Your task to perform on an android device: change the clock display to show seconds Image 0: 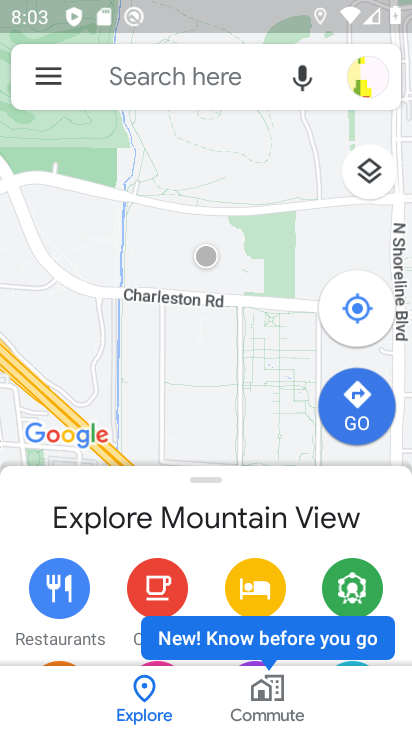
Step 0: press home button
Your task to perform on an android device: change the clock display to show seconds Image 1: 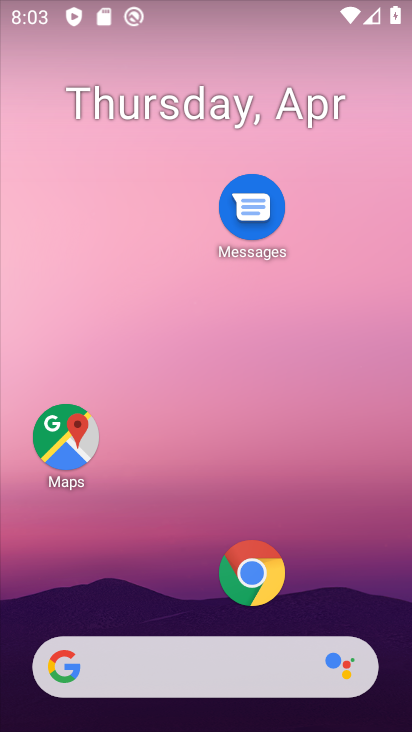
Step 1: drag from (178, 580) to (202, 59)
Your task to perform on an android device: change the clock display to show seconds Image 2: 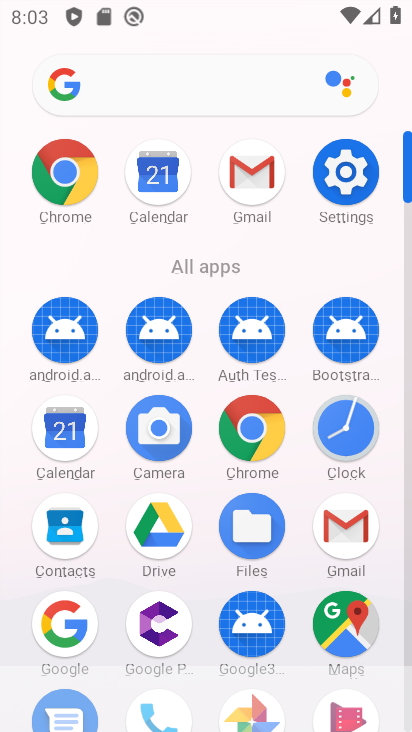
Step 2: click (344, 424)
Your task to perform on an android device: change the clock display to show seconds Image 3: 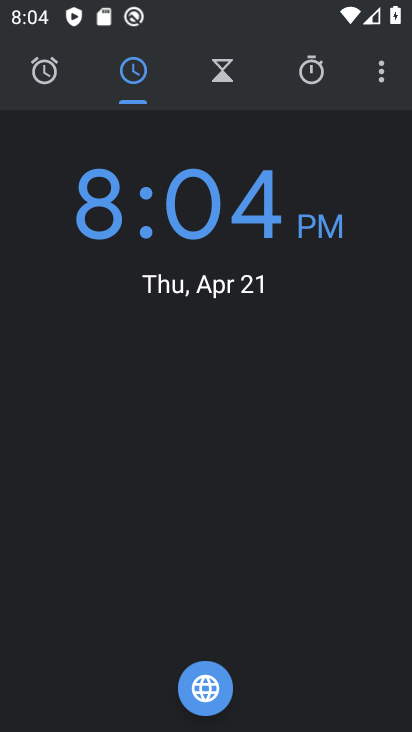
Step 3: click (378, 71)
Your task to perform on an android device: change the clock display to show seconds Image 4: 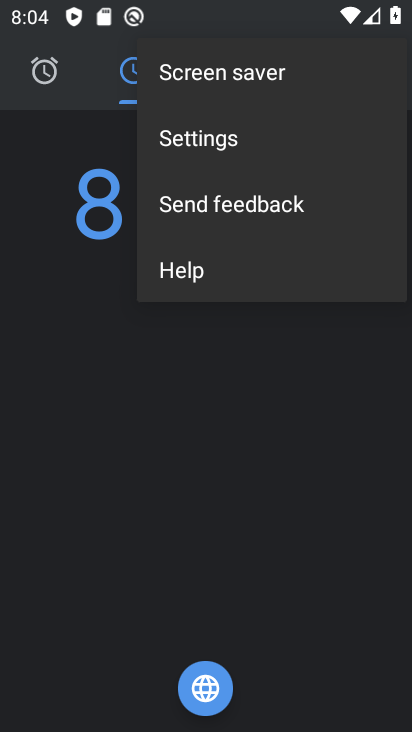
Step 4: click (245, 144)
Your task to perform on an android device: change the clock display to show seconds Image 5: 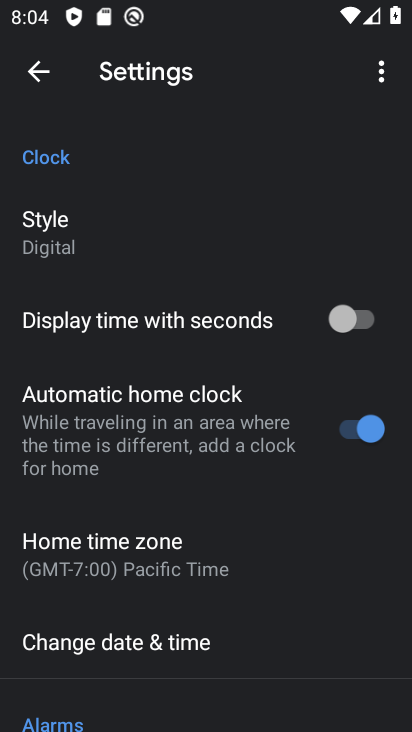
Step 5: click (355, 319)
Your task to perform on an android device: change the clock display to show seconds Image 6: 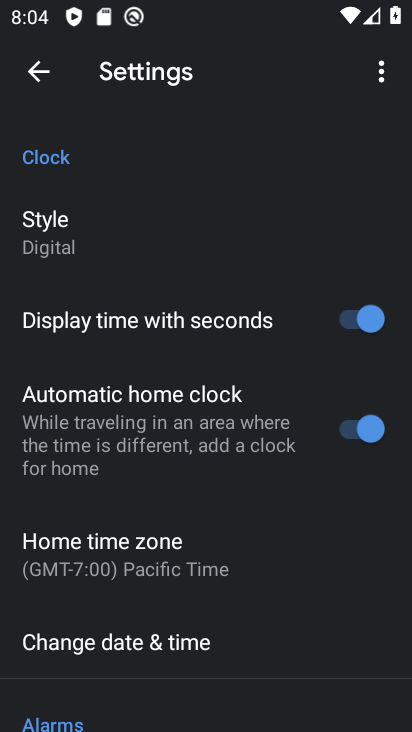
Step 6: task complete